Your task to perform on an android device: Open the web browser Image 0: 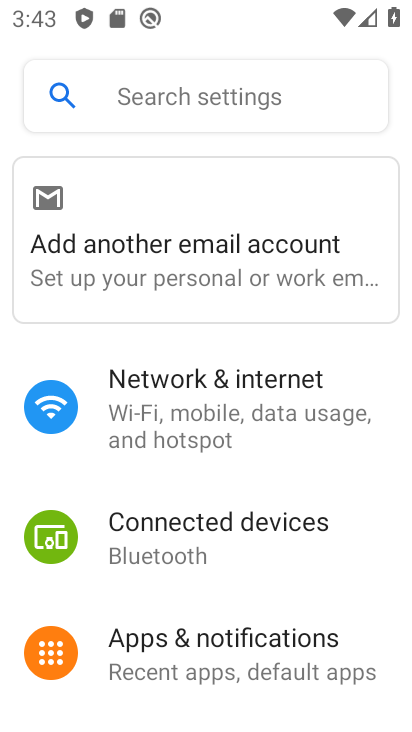
Step 0: press back button
Your task to perform on an android device: Open the web browser Image 1: 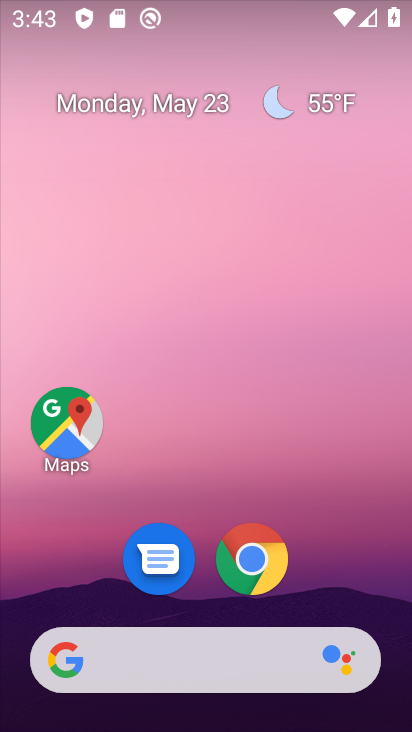
Step 1: drag from (289, 683) to (266, 10)
Your task to perform on an android device: Open the web browser Image 2: 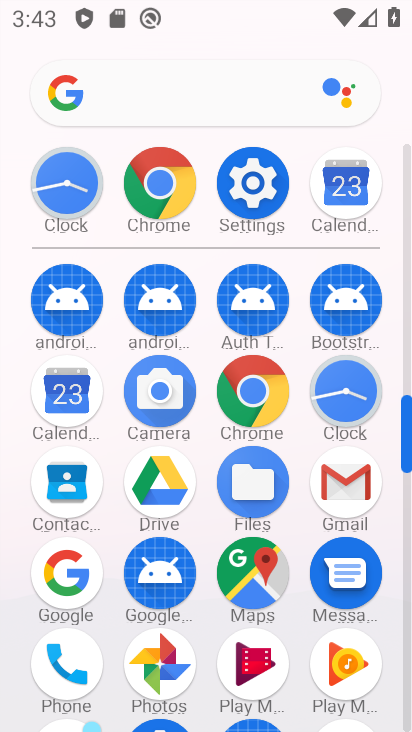
Step 2: click (167, 177)
Your task to perform on an android device: Open the web browser Image 3: 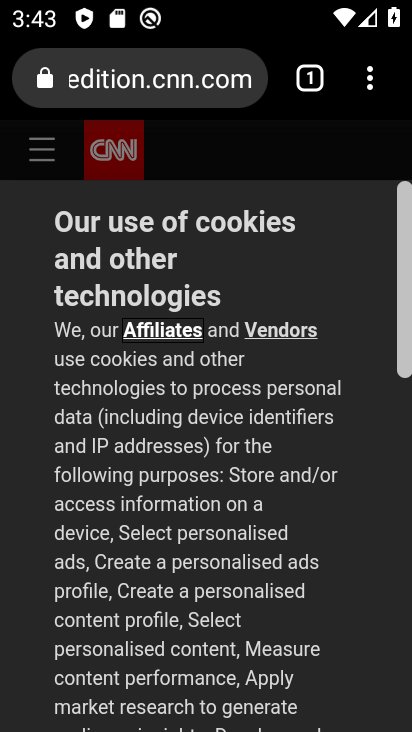
Step 3: task complete